Your task to perform on an android device: change notification settings in the gmail app Image 0: 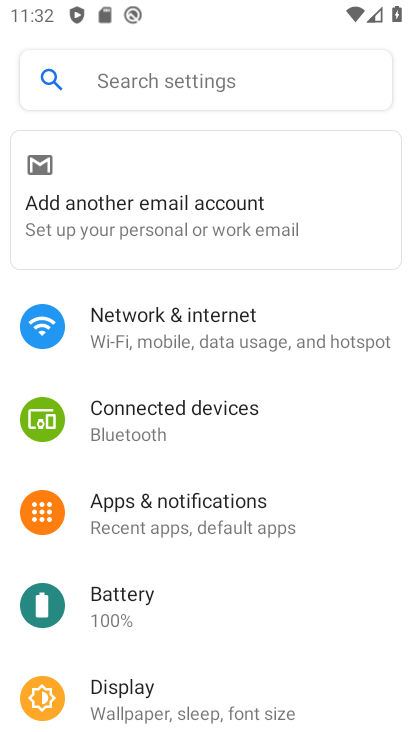
Step 0: click (190, 527)
Your task to perform on an android device: change notification settings in the gmail app Image 1: 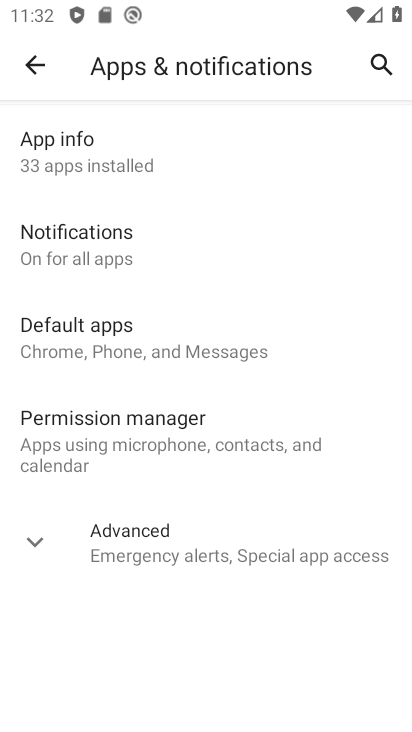
Step 1: click (100, 238)
Your task to perform on an android device: change notification settings in the gmail app Image 2: 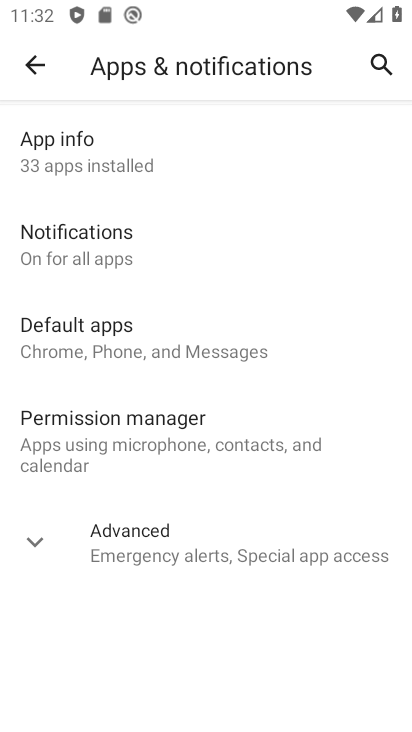
Step 2: press home button
Your task to perform on an android device: change notification settings in the gmail app Image 3: 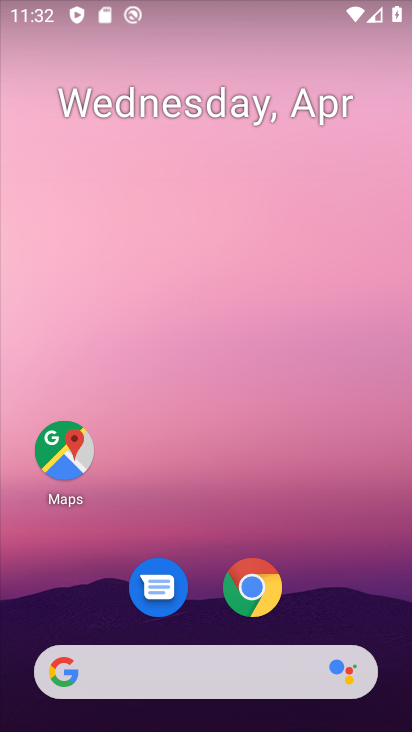
Step 3: drag from (306, 550) to (277, 163)
Your task to perform on an android device: change notification settings in the gmail app Image 4: 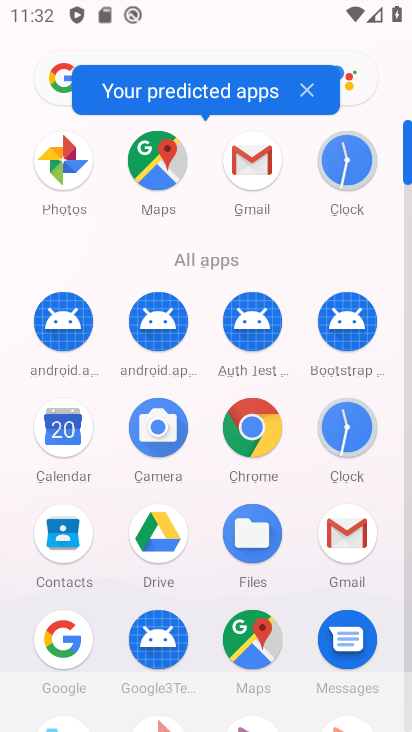
Step 4: click (340, 535)
Your task to perform on an android device: change notification settings in the gmail app Image 5: 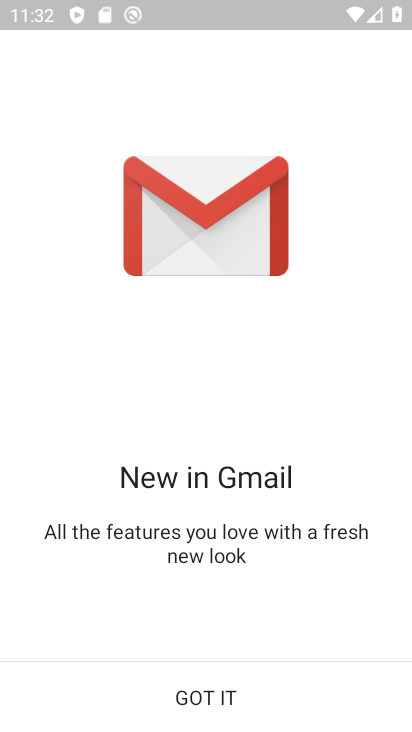
Step 5: click (198, 685)
Your task to perform on an android device: change notification settings in the gmail app Image 6: 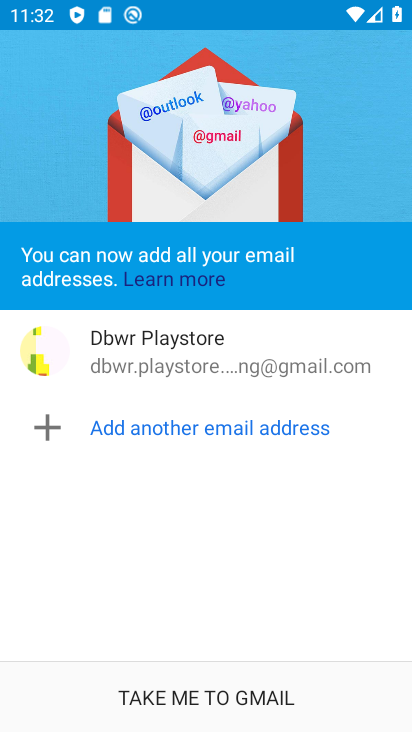
Step 6: click (198, 685)
Your task to perform on an android device: change notification settings in the gmail app Image 7: 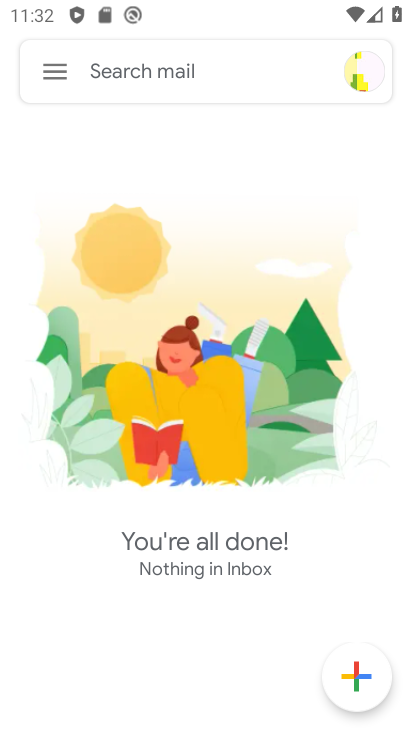
Step 7: click (53, 78)
Your task to perform on an android device: change notification settings in the gmail app Image 8: 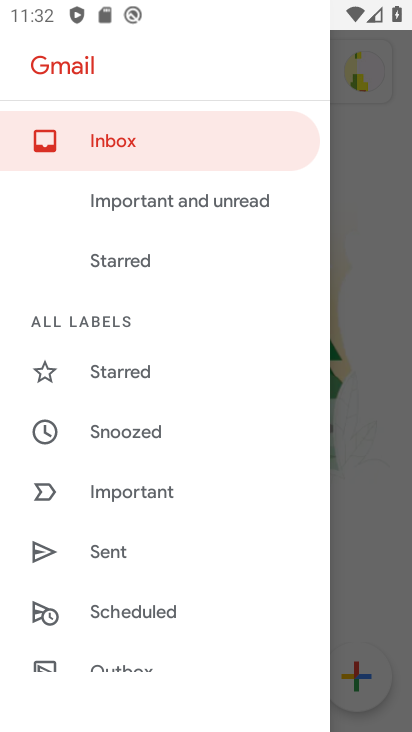
Step 8: drag from (125, 556) to (133, 432)
Your task to perform on an android device: change notification settings in the gmail app Image 9: 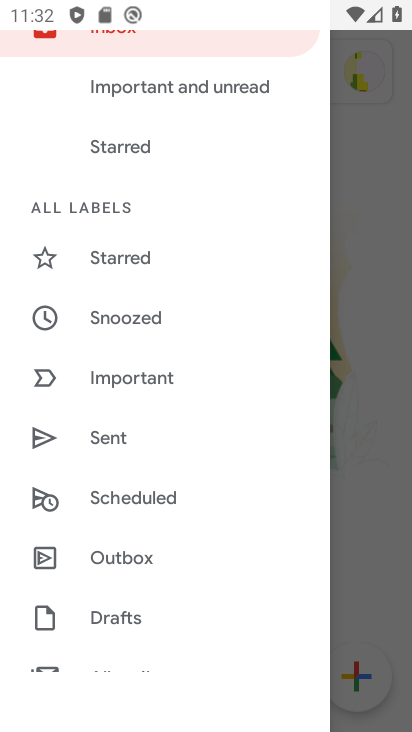
Step 9: click (192, 386)
Your task to perform on an android device: change notification settings in the gmail app Image 10: 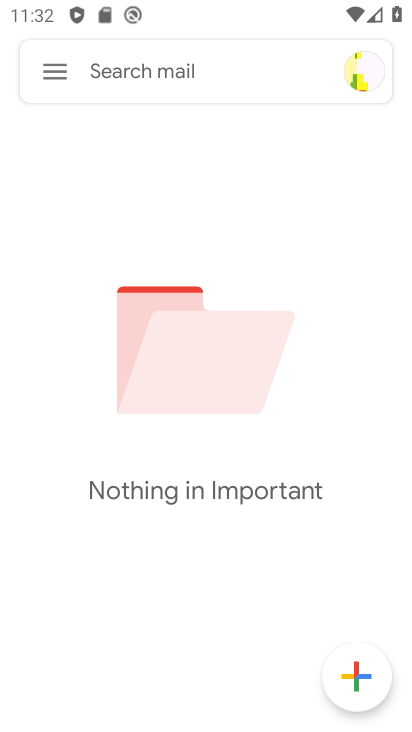
Step 10: click (54, 66)
Your task to perform on an android device: change notification settings in the gmail app Image 11: 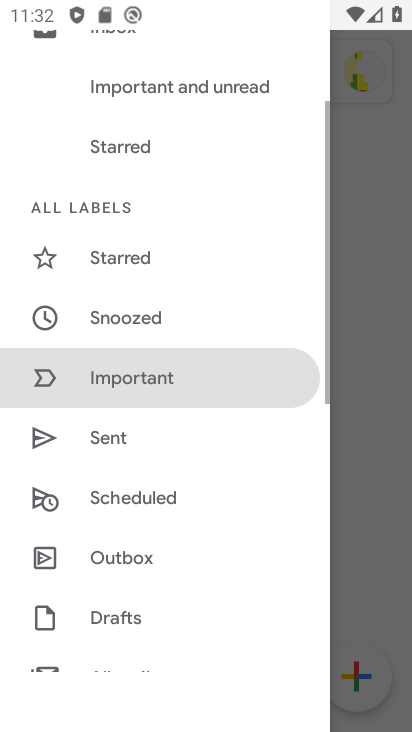
Step 11: drag from (138, 593) to (176, 284)
Your task to perform on an android device: change notification settings in the gmail app Image 12: 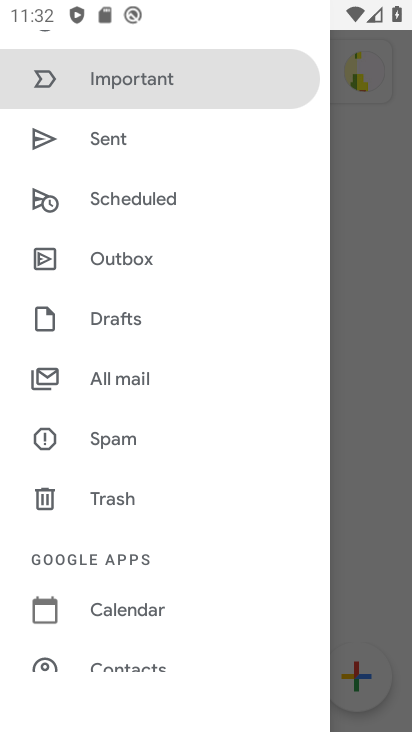
Step 12: drag from (144, 650) to (153, 440)
Your task to perform on an android device: change notification settings in the gmail app Image 13: 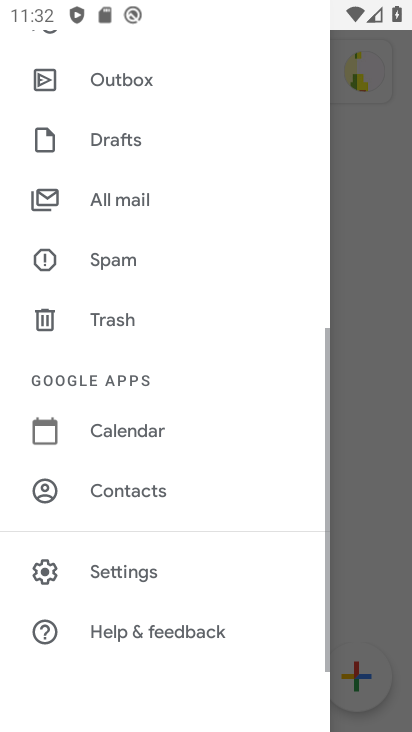
Step 13: click (151, 583)
Your task to perform on an android device: change notification settings in the gmail app Image 14: 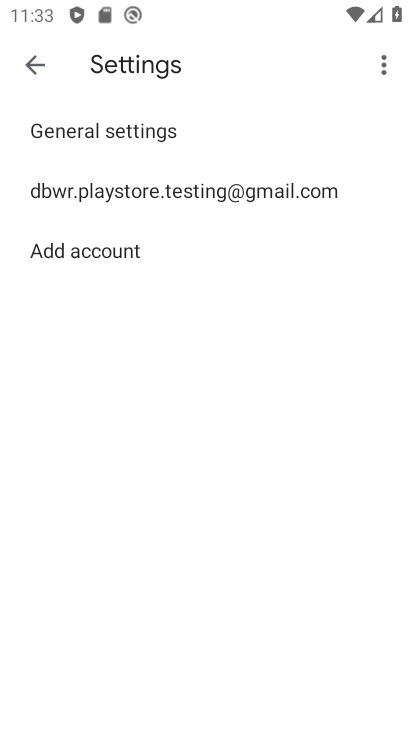
Step 14: click (106, 118)
Your task to perform on an android device: change notification settings in the gmail app Image 15: 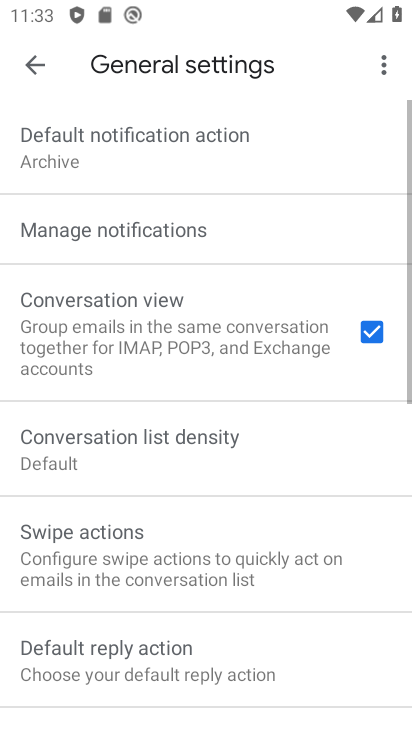
Step 15: click (158, 225)
Your task to perform on an android device: change notification settings in the gmail app Image 16: 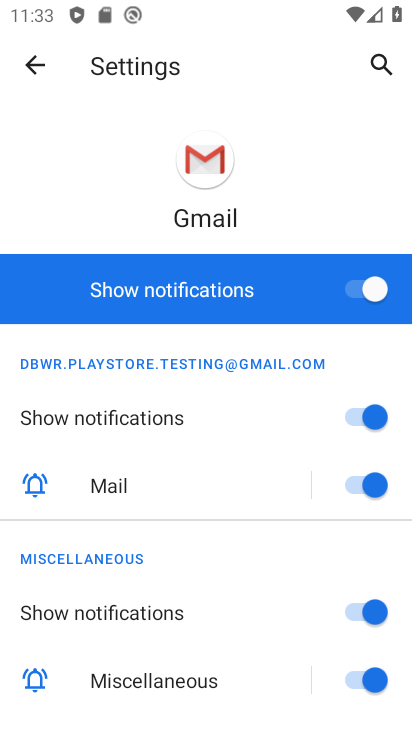
Step 16: click (342, 278)
Your task to perform on an android device: change notification settings in the gmail app Image 17: 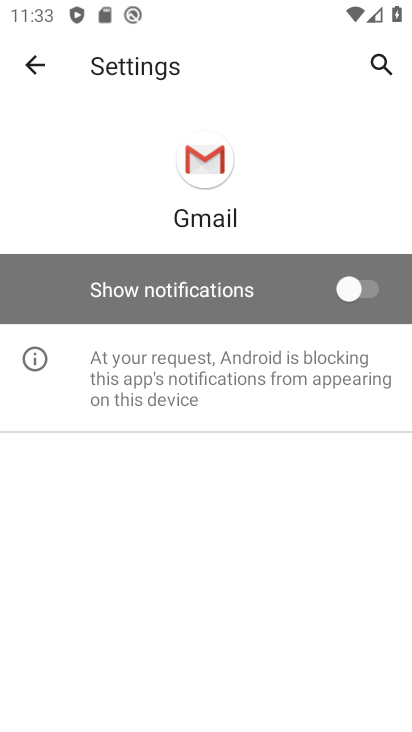
Step 17: task complete